Your task to perform on an android device: Search for vegetarian restaurants on Maps Image 0: 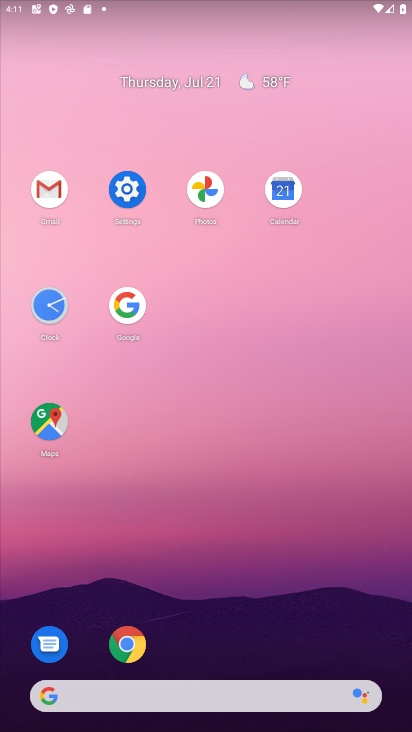
Step 0: click (38, 429)
Your task to perform on an android device: Search for vegetarian restaurants on Maps Image 1: 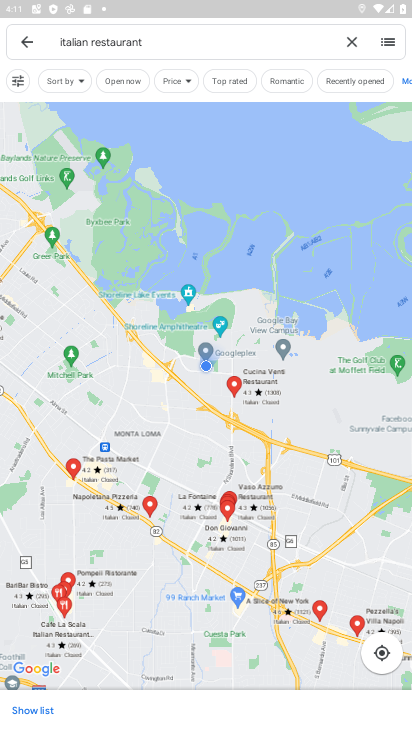
Step 1: click (355, 43)
Your task to perform on an android device: Search for vegetarian restaurants on Maps Image 2: 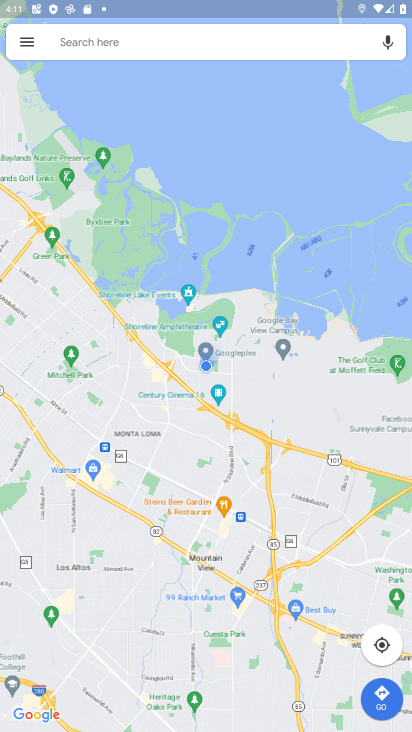
Step 2: click (208, 42)
Your task to perform on an android device: Search for vegetarian restaurants on Maps Image 3: 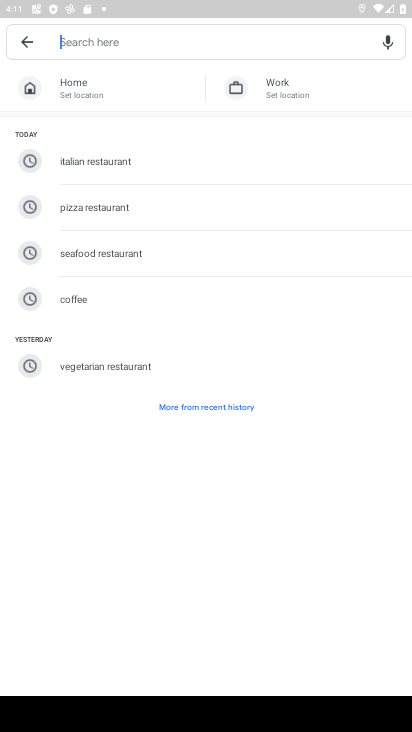
Step 3: click (82, 366)
Your task to perform on an android device: Search for vegetarian restaurants on Maps Image 4: 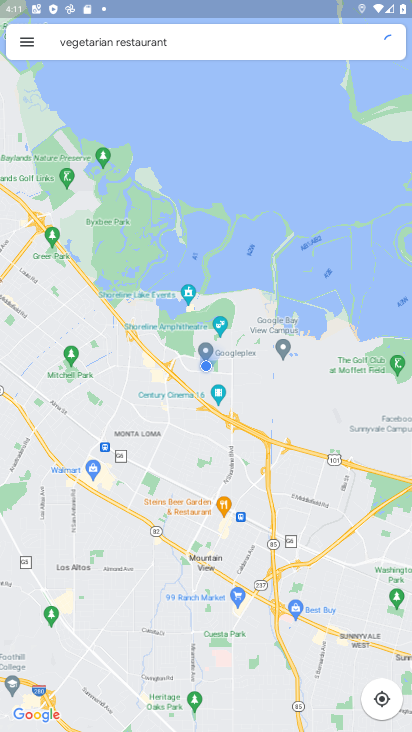
Step 4: task complete